Your task to perform on an android device: When is my next appointment? Image 0: 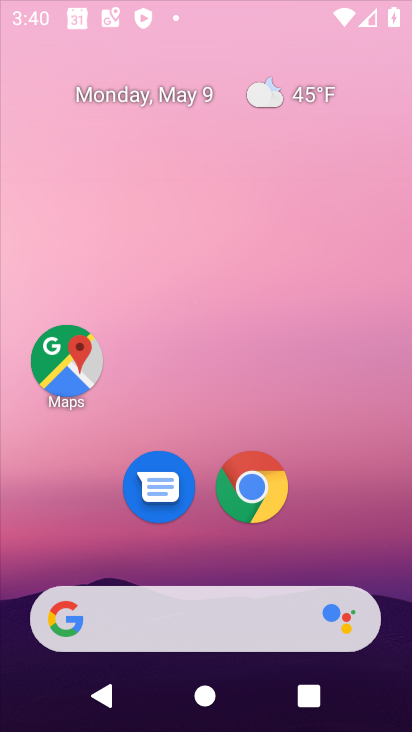
Step 0: click (257, 488)
Your task to perform on an android device: When is my next appointment? Image 1: 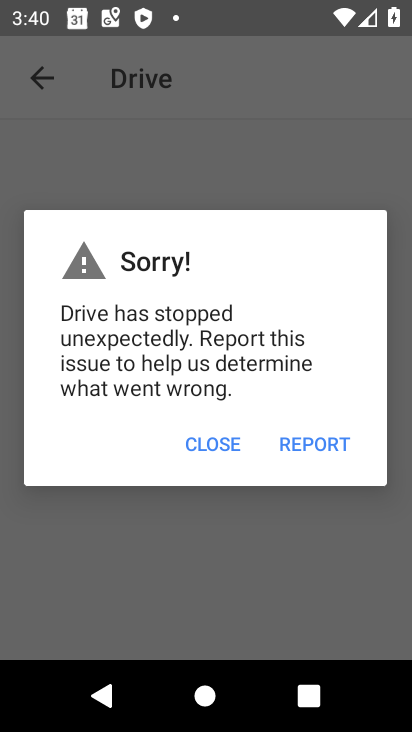
Step 1: press home button
Your task to perform on an android device: When is my next appointment? Image 2: 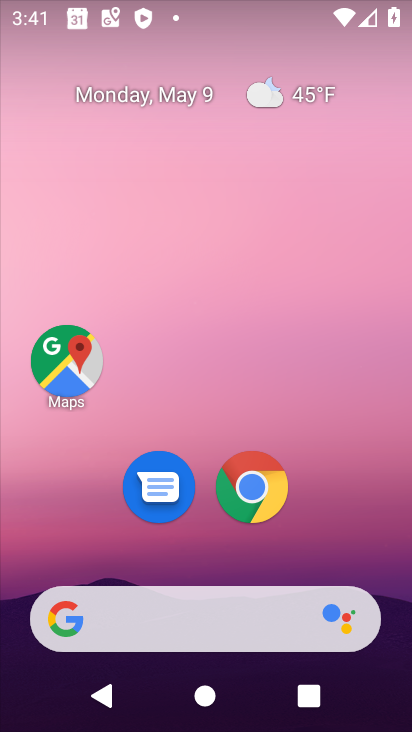
Step 2: drag from (216, 585) to (186, 84)
Your task to perform on an android device: When is my next appointment? Image 3: 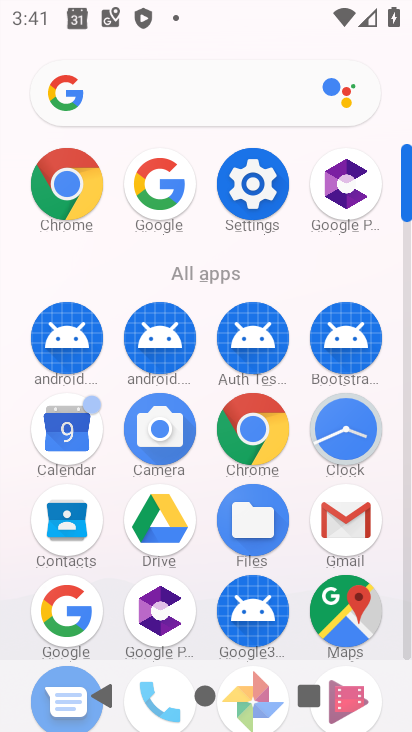
Step 3: click (58, 440)
Your task to perform on an android device: When is my next appointment? Image 4: 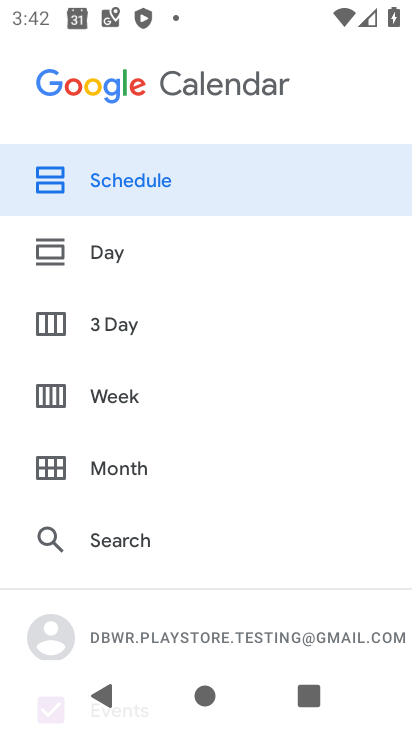
Step 4: click (100, 198)
Your task to perform on an android device: When is my next appointment? Image 5: 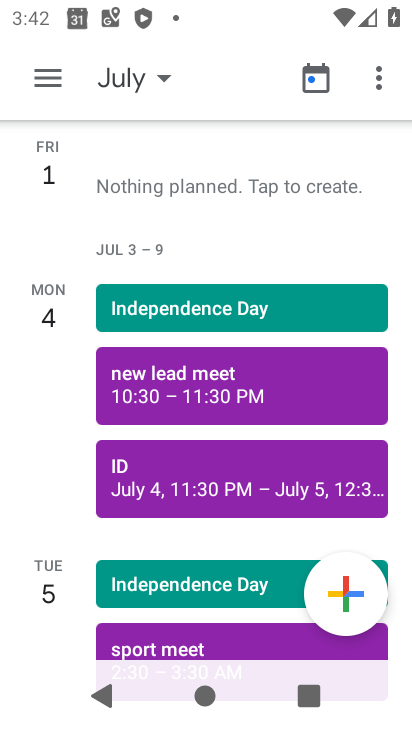
Step 5: click (135, 78)
Your task to perform on an android device: When is my next appointment? Image 6: 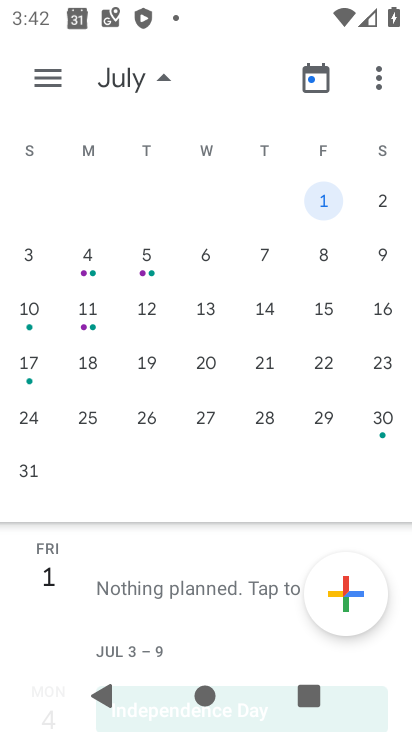
Step 6: drag from (32, 319) to (409, 369)
Your task to perform on an android device: When is my next appointment? Image 7: 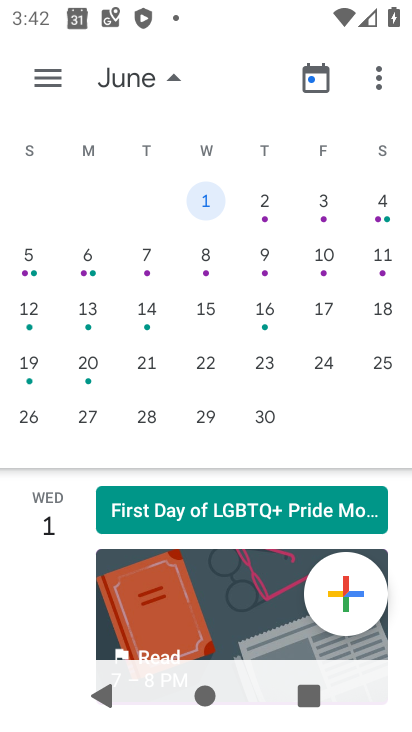
Step 7: drag from (68, 328) to (361, 358)
Your task to perform on an android device: When is my next appointment? Image 8: 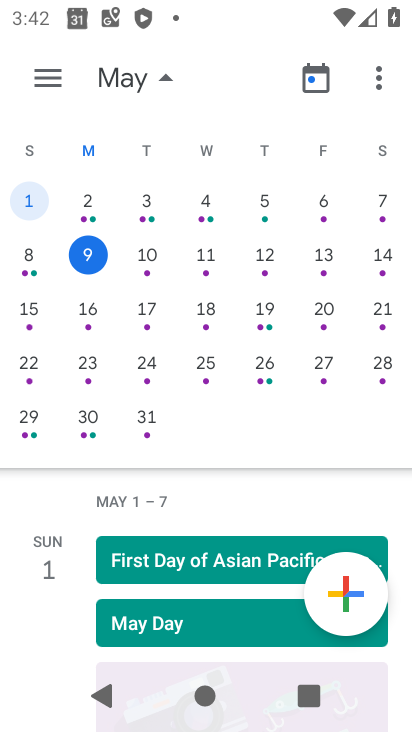
Step 8: click (51, 79)
Your task to perform on an android device: When is my next appointment? Image 9: 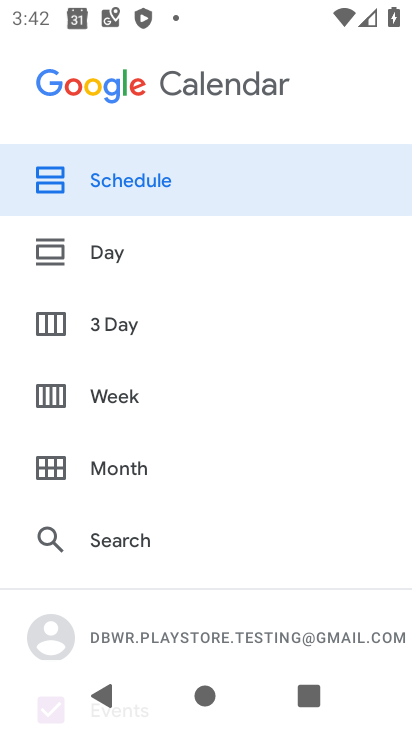
Step 9: click (90, 174)
Your task to perform on an android device: When is my next appointment? Image 10: 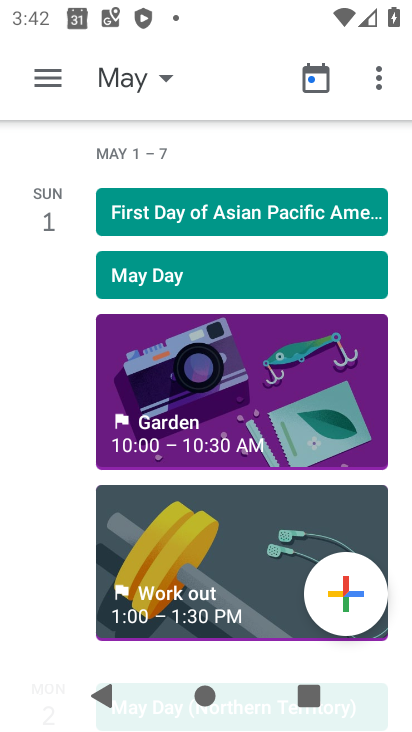
Step 10: task complete